Your task to perform on an android device: change the clock display to digital Image 0: 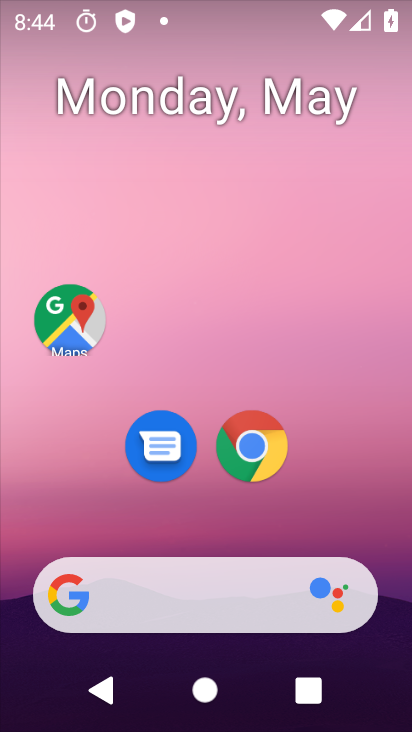
Step 0: drag from (362, 548) to (352, 11)
Your task to perform on an android device: change the clock display to digital Image 1: 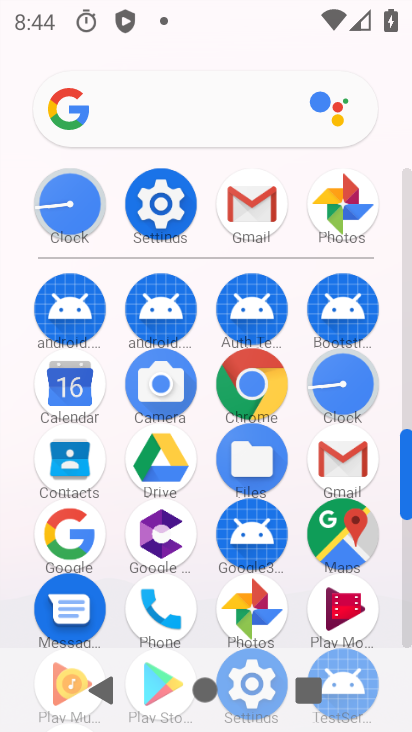
Step 1: click (69, 200)
Your task to perform on an android device: change the clock display to digital Image 2: 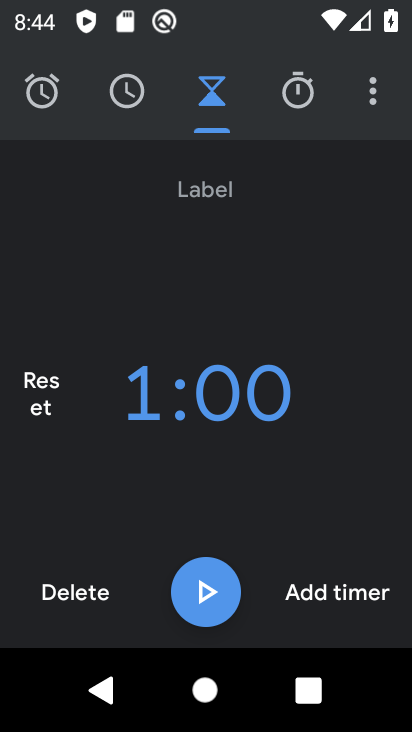
Step 2: click (372, 90)
Your task to perform on an android device: change the clock display to digital Image 3: 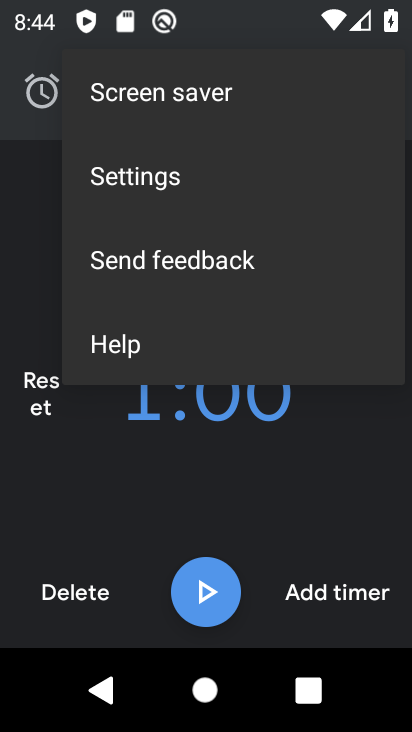
Step 3: click (129, 177)
Your task to perform on an android device: change the clock display to digital Image 4: 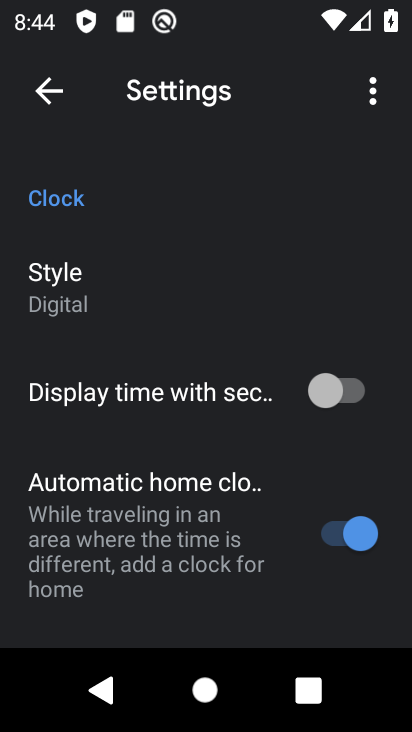
Step 4: task complete